Your task to perform on an android device: Empty the shopping cart on bestbuy. Add usb-c to the cart on bestbuy, then select checkout. Image 0: 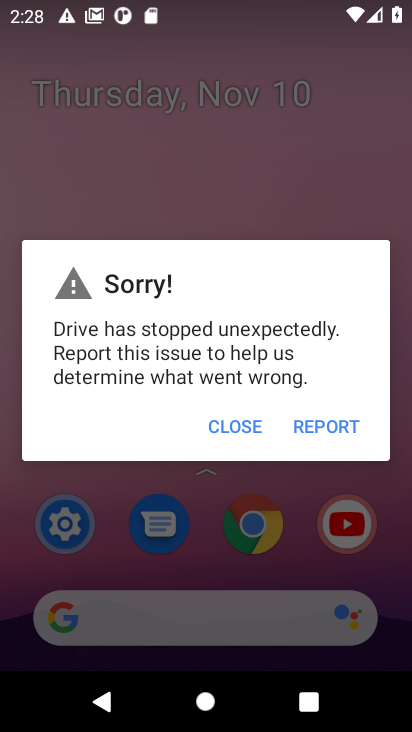
Step 0: click (234, 422)
Your task to perform on an android device: Empty the shopping cart on bestbuy. Add usb-c to the cart on bestbuy, then select checkout. Image 1: 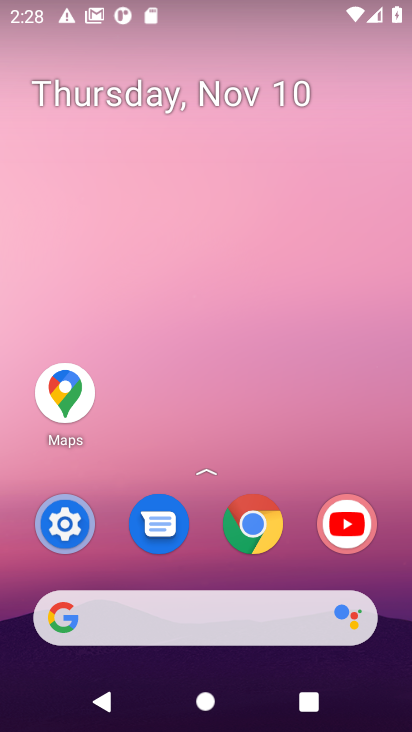
Step 1: click (253, 515)
Your task to perform on an android device: Empty the shopping cart on bestbuy. Add usb-c to the cart on bestbuy, then select checkout. Image 2: 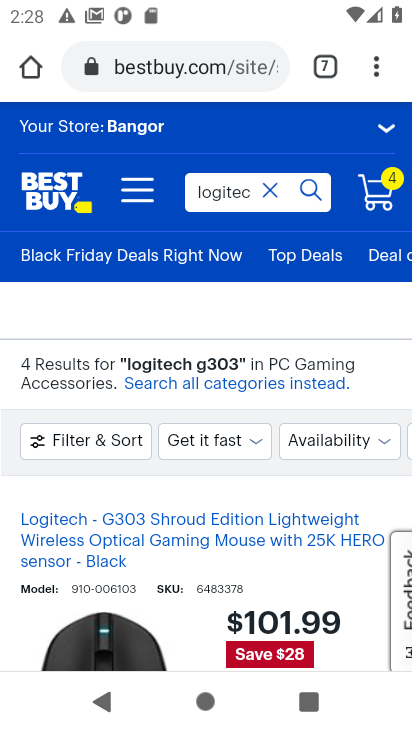
Step 2: click (270, 186)
Your task to perform on an android device: Empty the shopping cart on bestbuy. Add usb-c to the cart on bestbuy, then select checkout. Image 3: 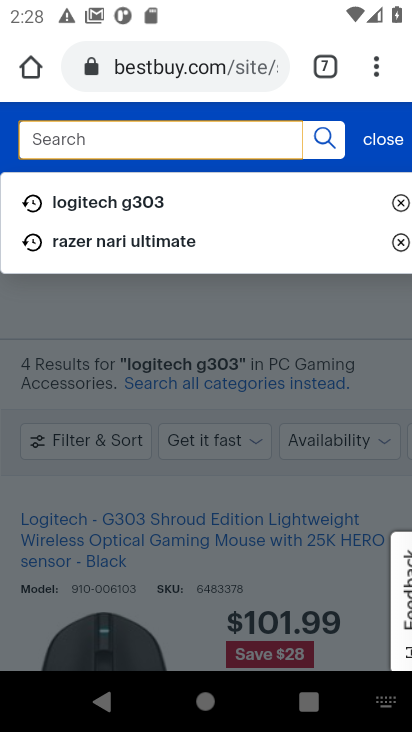
Step 3: type " usb-c"
Your task to perform on an android device: Empty the shopping cart on bestbuy. Add usb-c to the cart on bestbuy, then select checkout. Image 4: 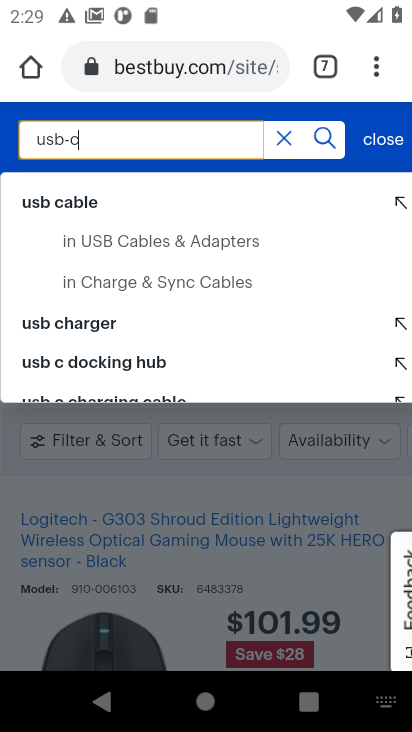
Step 4: click (70, 200)
Your task to perform on an android device: Empty the shopping cart on bestbuy. Add usb-c to the cart on bestbuy, then select checkout. Image 5: 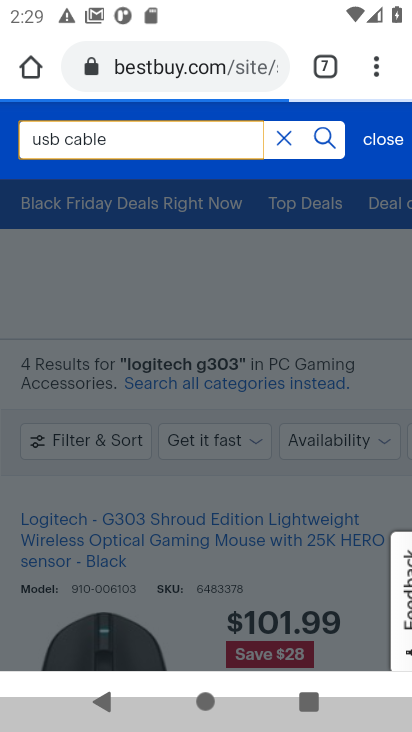
Step 5: click (328, 134)
Your task to perform on an android device: Empty the shopping cart on bestbuy. Add usb-c to the cart on bestbuy, then select checkout. Image 6: 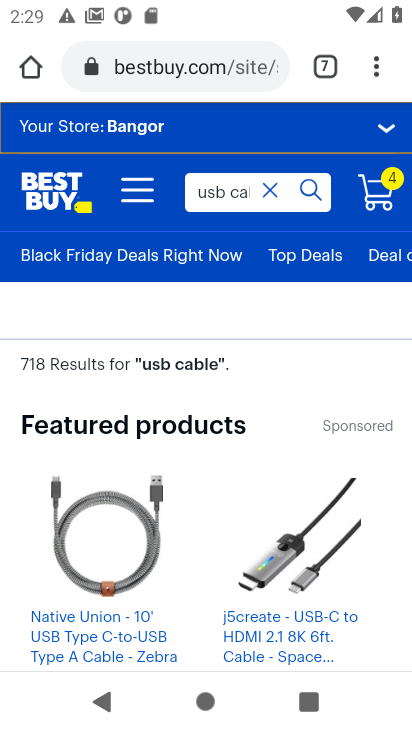
Step 6: click (259, 626)
Your task to perform on an android device: Empty the shopping cart on bestbuy. Add usb-c to the cart on bestbuy, then select checkout. Image 7: 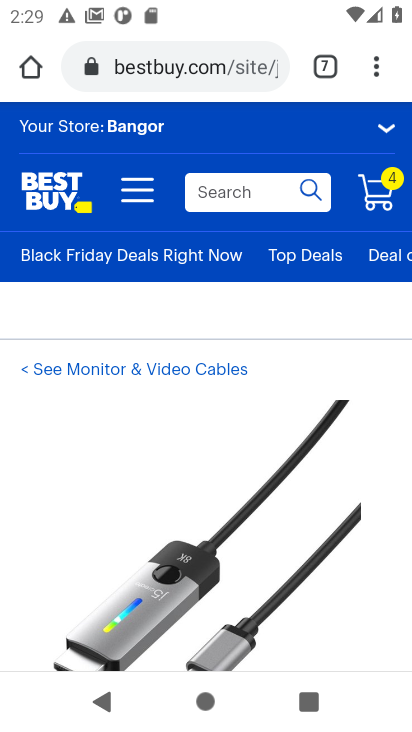
Step 7: drag from (327, 639) to (312, 375)
Your task to perform on an android device: Empty the shopping cart on bestbuy. Add usb-c to the cart on bestbuy, then select checkout. Image 8: 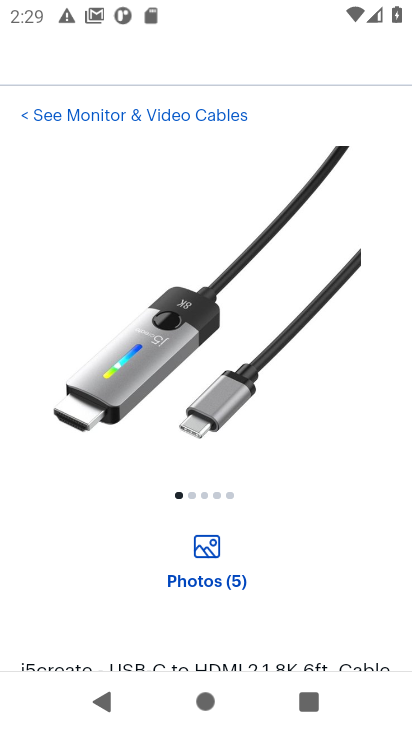
Step 8: drag from (297, 583) to (318, 326)
Your task to perform on an android device: Empty the shopping cart on bestbuy. Add usb-c to the cart on bestbuy, then select checkout. Image 9: 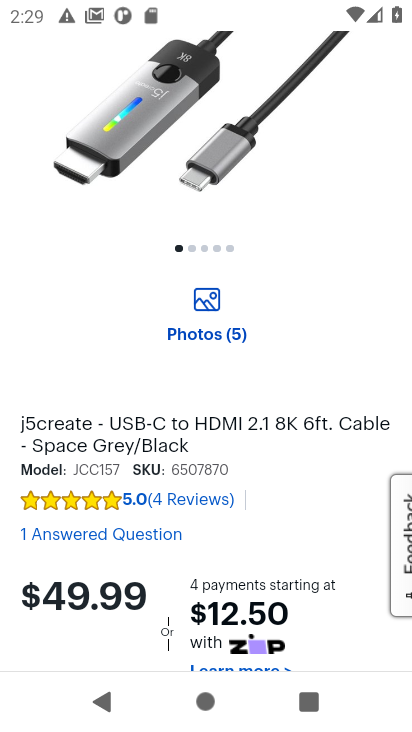
Step 9: drag from (298, 517) to (328, 306)
Your task to perform on an android device: Empty the shopping cart on bestbuy. Add usb-c to the cart on bestbuy, then select checkout. Image 10: 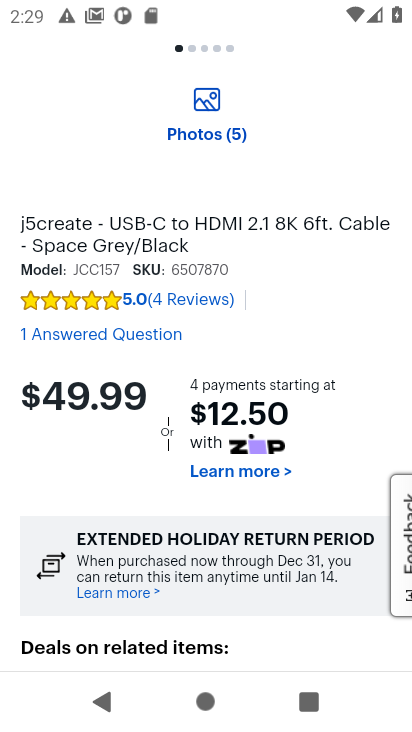
Step 10: drag from (258, 497) to (349, 252)
Your task to perform on an android device: Empty the shopping cart on bestbuy. Add usb-c to the cart on bestbuy, then select checkout. Image 11: 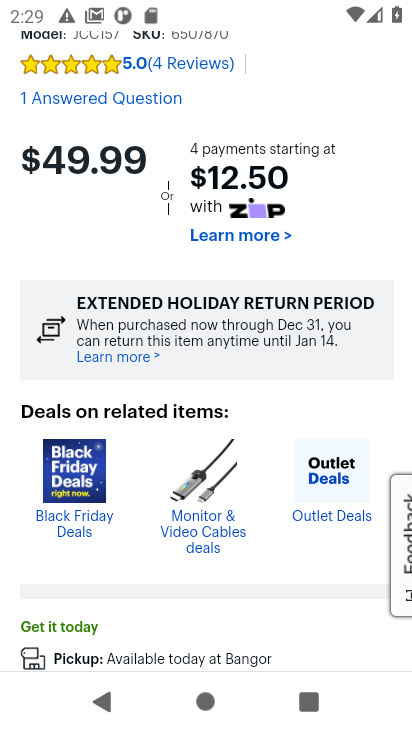
Step 11: drag from (300, 585) to (407, 297)
Your task to perform on an android device: Empty the shopping cart on bestbuy. Add usb-c to the cart on bestbuy, then select checkout. Image 12: 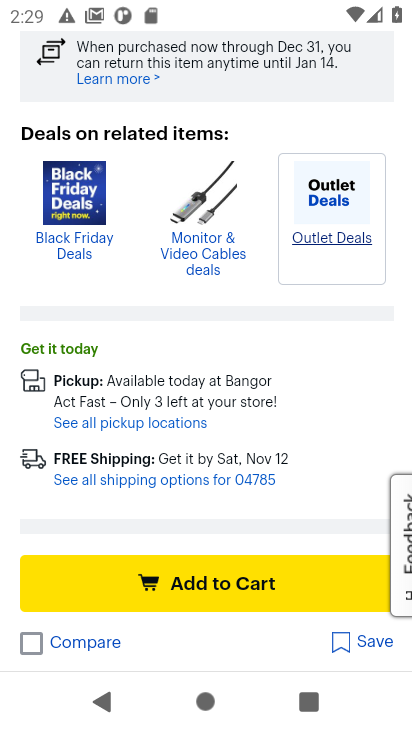
Step 12: click (228, 574)
Your task to perform on an android device: Empty the shopping cart on bestbuy. Add usb-c to the cart on bestbuy, then select checkout. Image 13: 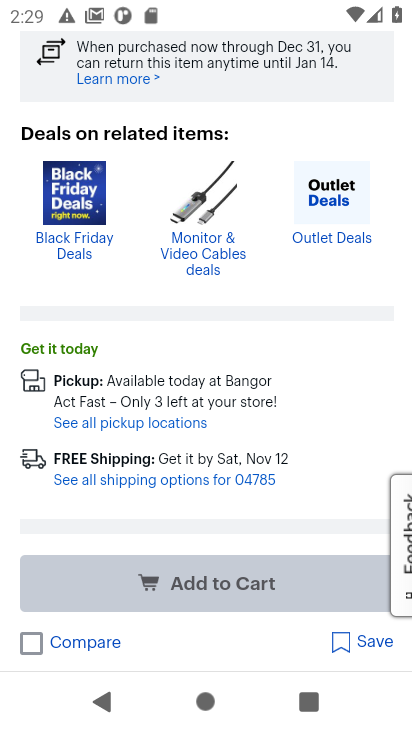
Step 13: drag from (372, 134) to (403, 487)
Your task to perform on an android device: Empty the shopping cart on bestbuy. Add usb-c to the cart on bestbuy, then select checkout. Image 14: 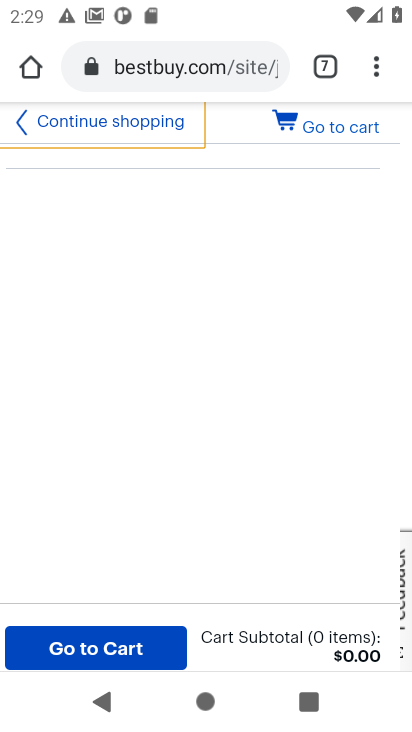
Step 14: drag from (387, 147) to (400, 462)
Your task to perform on an android device: Empty the shopping cart on bestbuy. Add usb-c to the cart on bestbuy, then select checkout. Image 15: 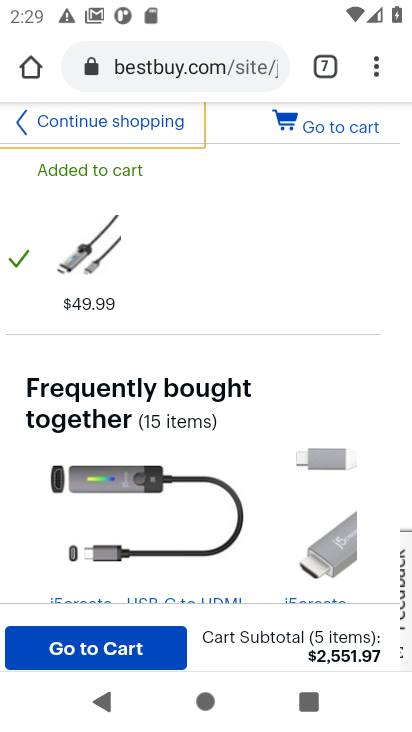
Step 15: click (316, 124)
Your task to perform on an android device: Empty the shopping cart on bestbuy. Add usb-c to the cart on bestbuy, then select checkout. Image 16: 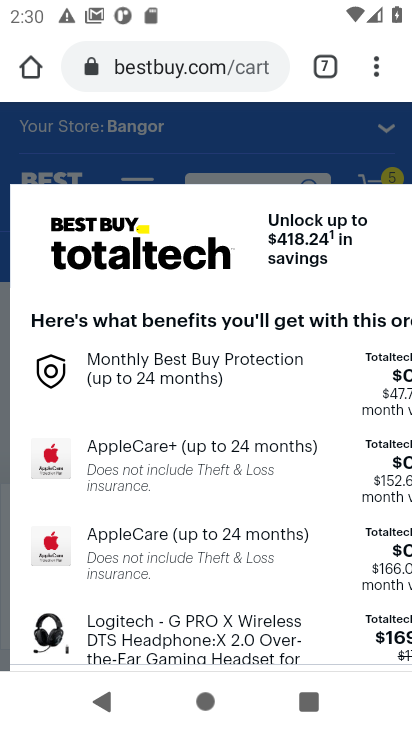
Step 16: click (318, 154)
Your task to perform on an android device: Empty the shopping cart on bestbuy. Add usb-c to the cart on bestbuy, then select checkout. Image 17: 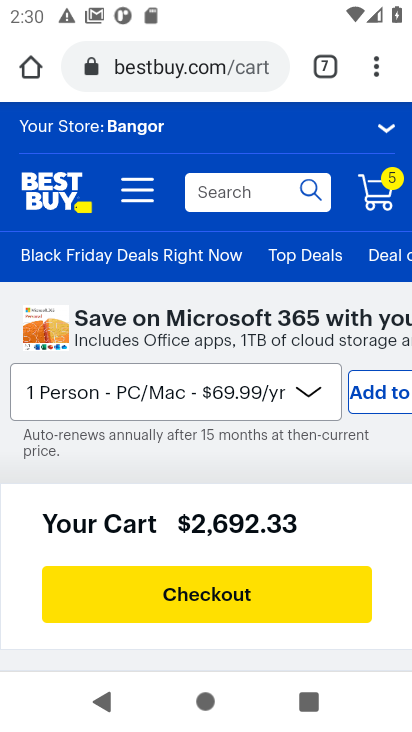
Step 17: click (318, 154)
Your task to perform on an android device: Empty the shopping cart on bestbuy. Add usb-c to the cart on bestbuy, then select checkout. Image 18: 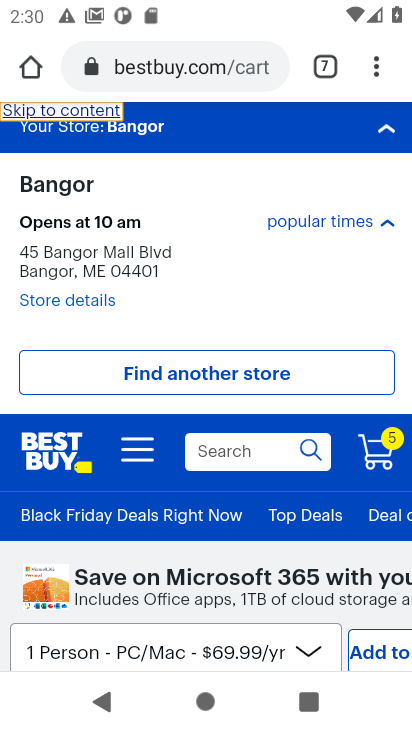
Step 18: click (318, 154)
Your task to perform on an android device: Empty the shopping cart on bestbuy. Add usb-c to the cart on bestbuy, then select checkout. Image 19: 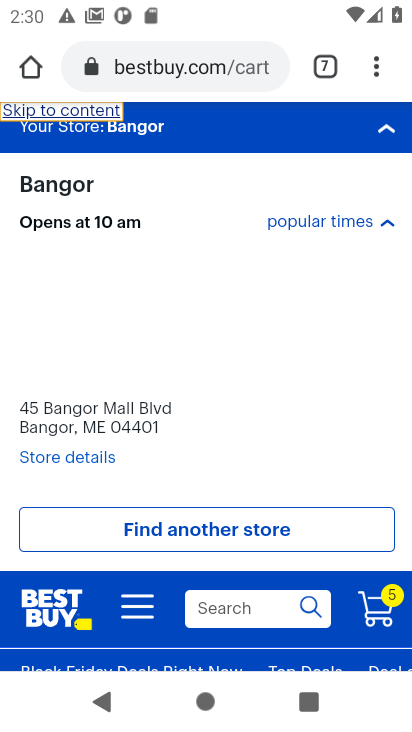
Step 19: click (318, 154)
Your task to perform on an android device: Empty the shopping cart on bestbuy. Add usb-c to the cart on bestbuy, then select checkout. Image 20: 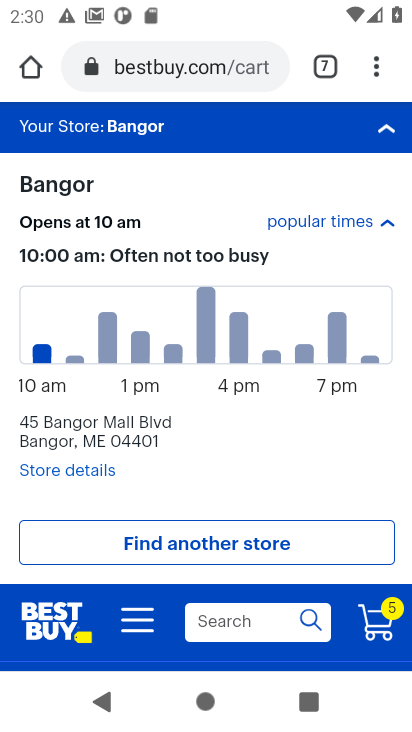
Step 20: drag from (245, 609) to (233, 281)
Your task to perform on an android device: Empty the shopping cart on bestbuy. Add usb-c to the cart on bestbuy, then select checkout. Image 21: 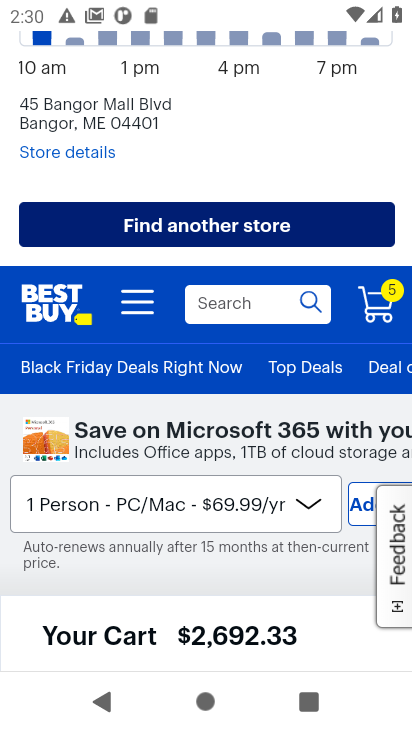
Step 21: drag from (269, 603) to (263, 229)
Your task to perform on an android device: Empty the shopping cart on bestbuy. Add usb-c to the cart on bestbuy, then select checkout. Image 22: 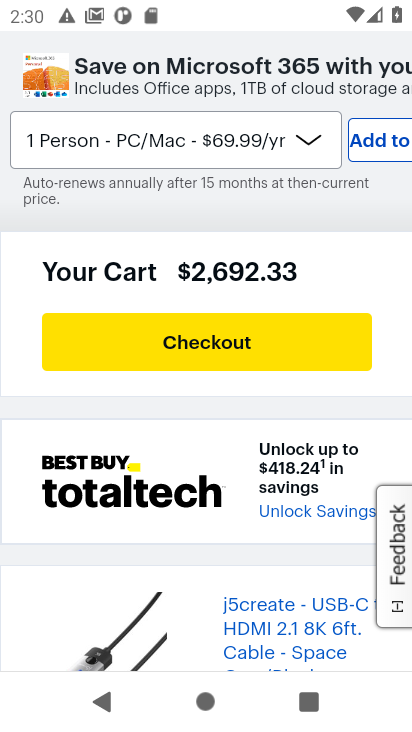
Step 22: click (239, 335)
Your task to perform on an android device: Empty the shopping cart on bestbuy. Add usb-c to the cart on bestbuy, then select checkout. Image 23: 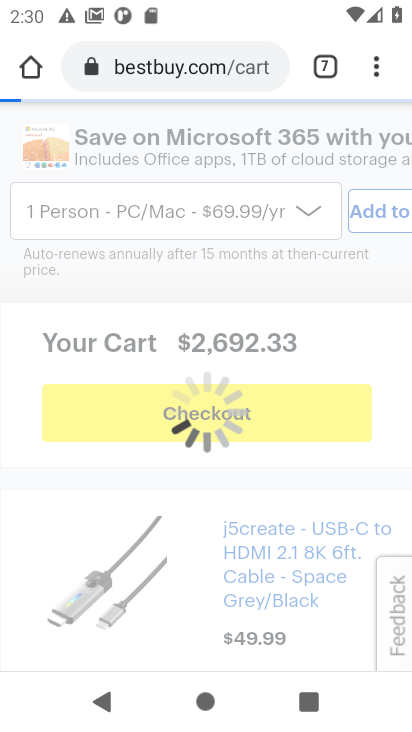
Step 23: task complete